Your task to perform on an android device: What's on my calendar tomorrow? Image 0: 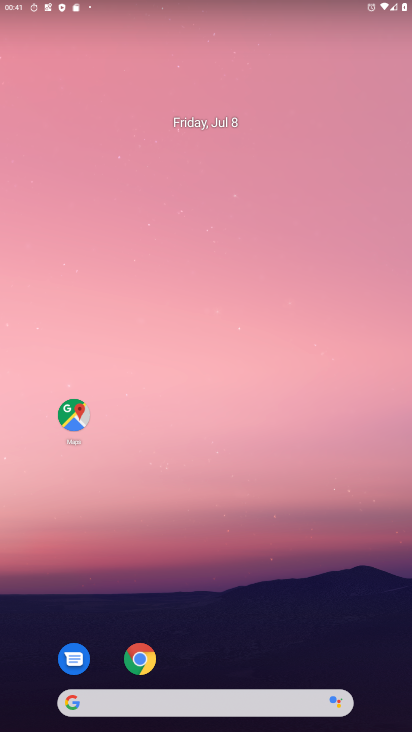
Step 0: click (223, 126)
Your task to perform on an android device: What's on my calendar tomorrow? Image 1: 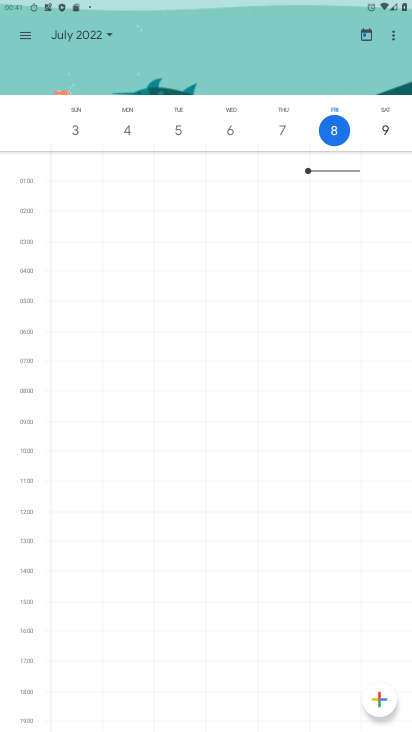
Step 1: click (386, 134)
Your task to perform on an android device: What's on my calendar tomorrow? Image 2: 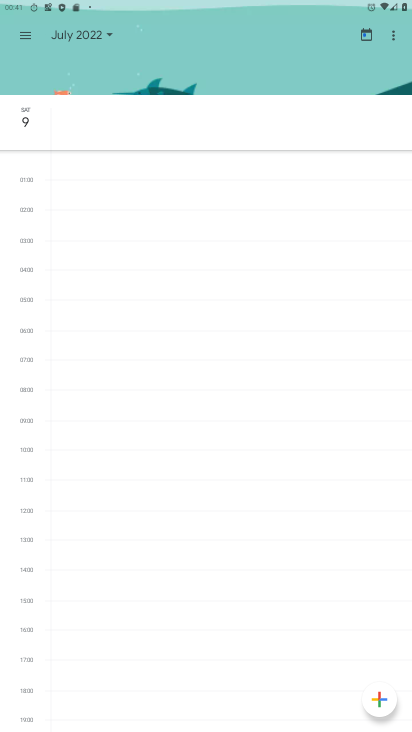
Step 2: task complete